Your task to perform on an android device: Open the map Image 0: 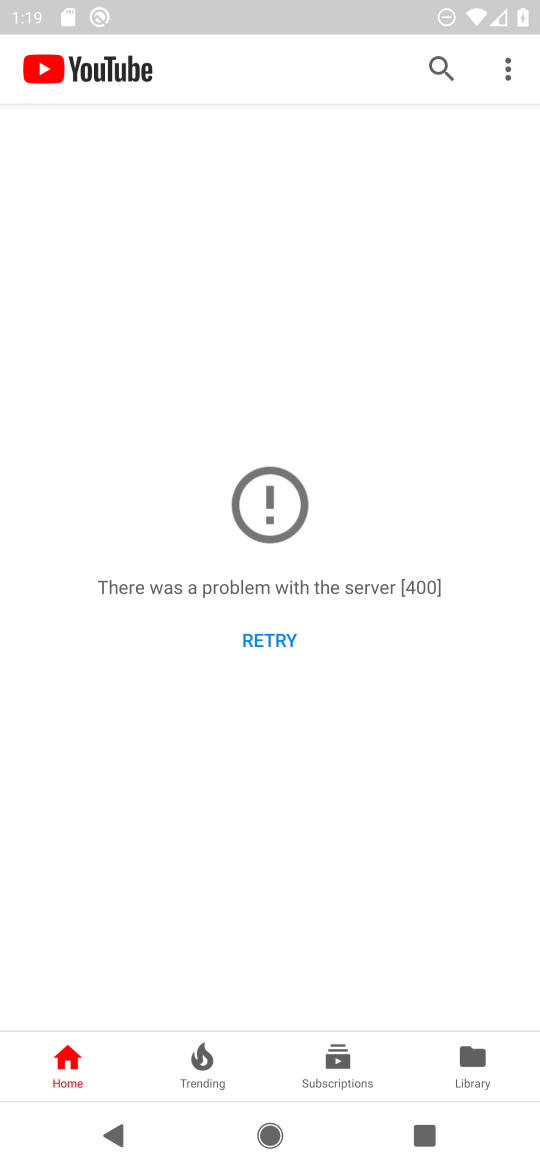
Step 0: press home button
Your task to perform on an android device: Open the map Image 1: 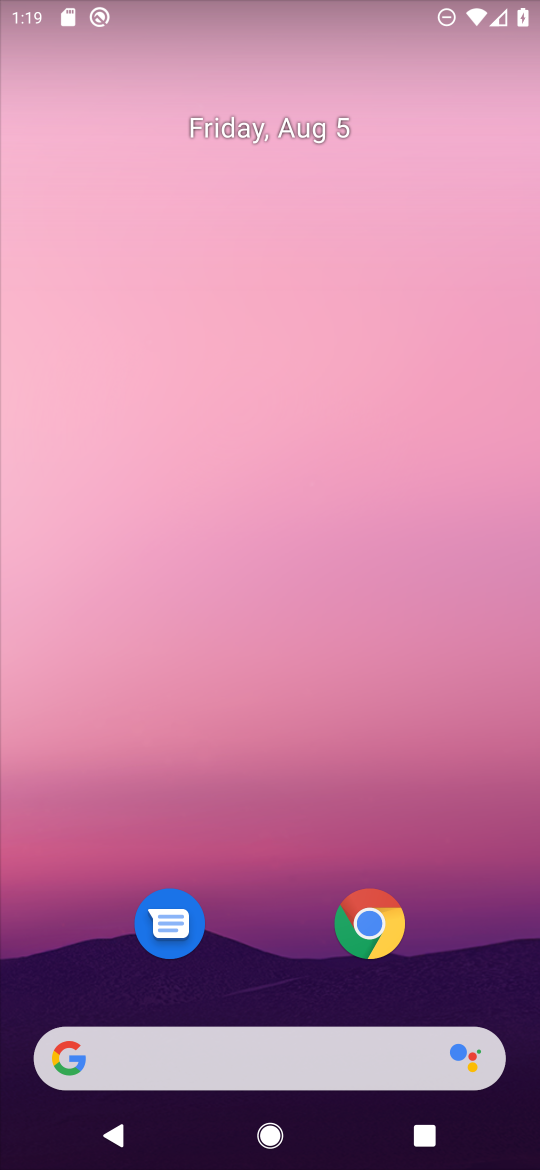
Step 1: drag from (233, 1001) to (441, 102)
Your task to perform on an android device: Open the map Image 2: 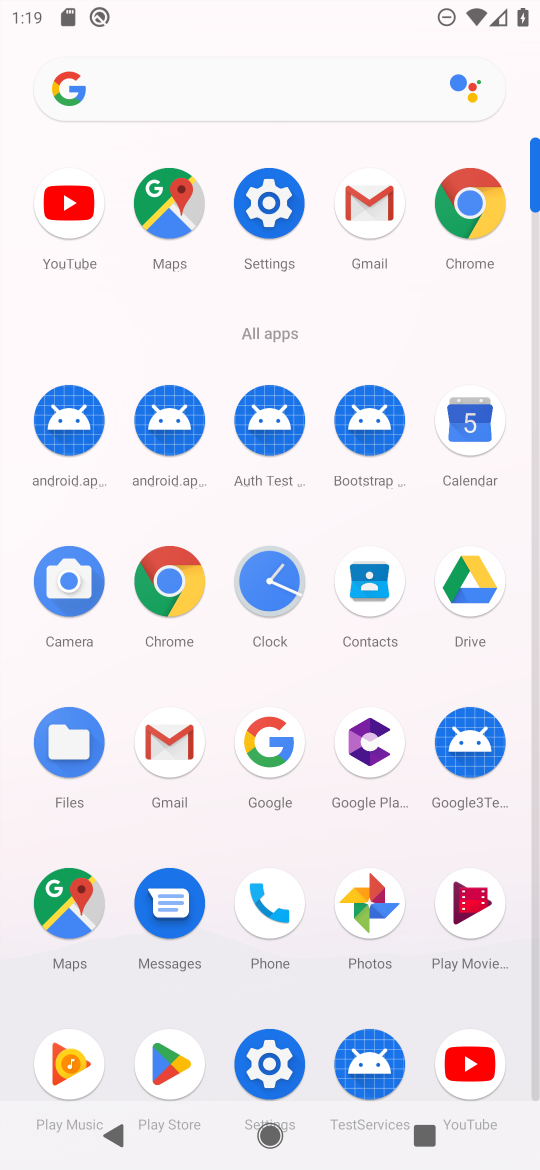
Step 2: click (82, 906)
Your task to perform on an android device: Open the map Image 3: 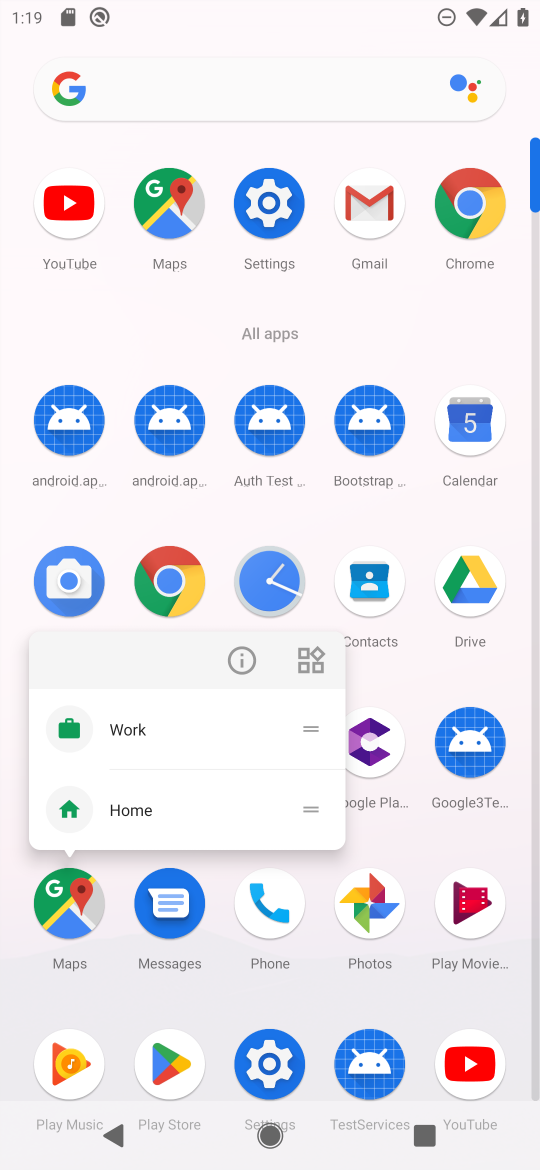
Step 3: click (98, 916)
Your task to perform on an android device: Open the map Image 4: 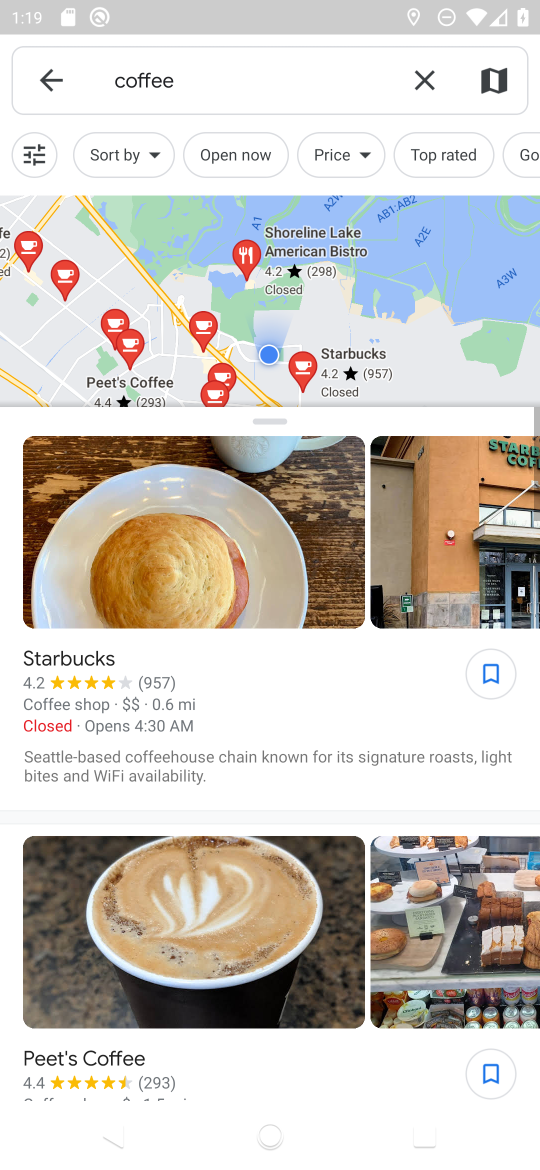
Step 4: task complete